Your task to perform on an android device: Open the stopwatch Image 0: 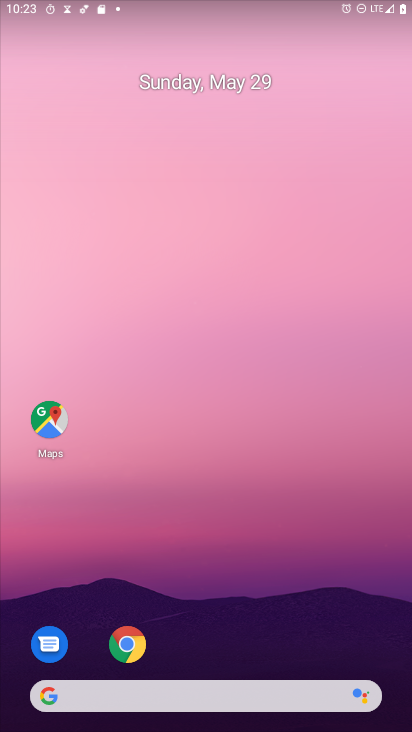
Step 0: drag from (127, 727) to (149, 79)
Your task to perform on an android device: Open the stopwatch Image 1: 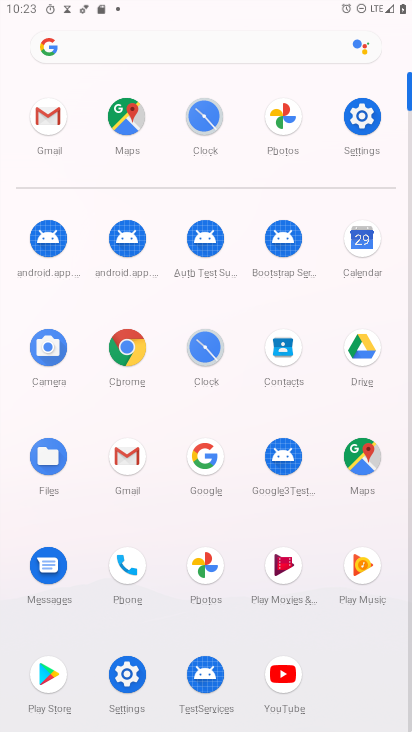
Step 1: click (208, 346)
Your task to perform on an android device: Open the stopwatch Image 2: 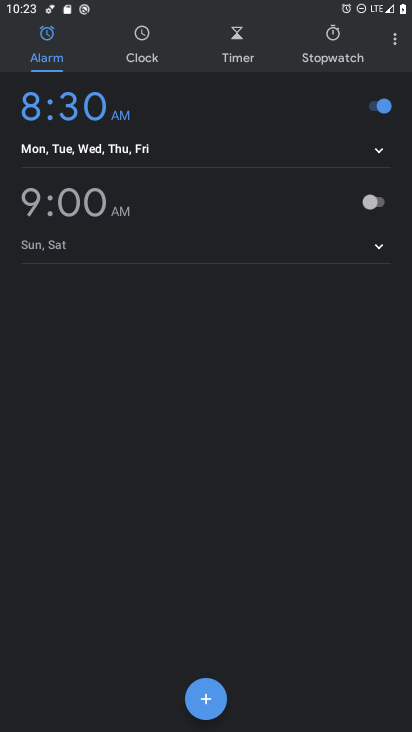
Step 2: click (325, 38)
Your task to perform on an android device: Open the stopwatch Image 3: 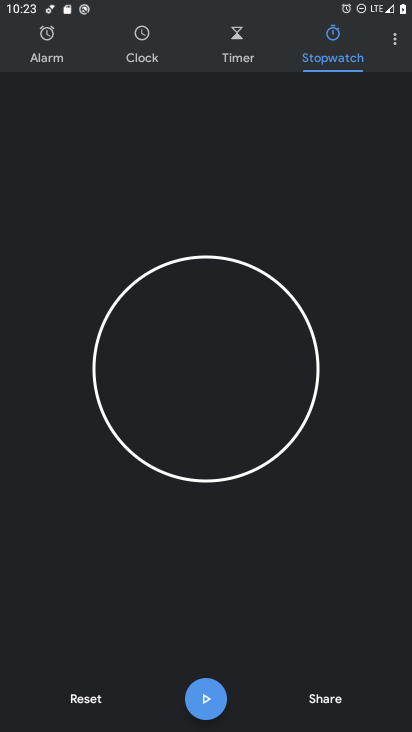
Step 3: task complete